Your task to perform on an android device: check android version Image 0: 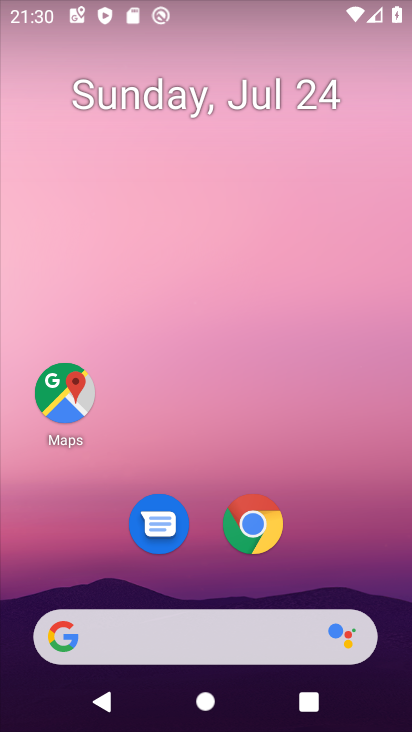
Step 0: press home button
Your task to perform on an android device: check android version Image 1: 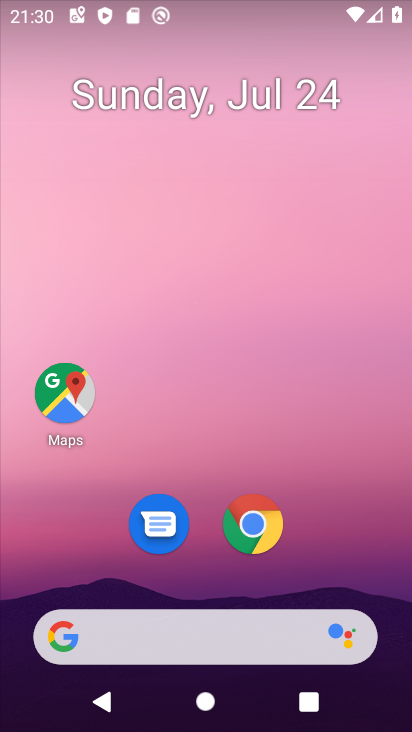
Step 1: drag from (178, 641) to (289, 133)
Your task to perform on an android device: check android version Image 2: 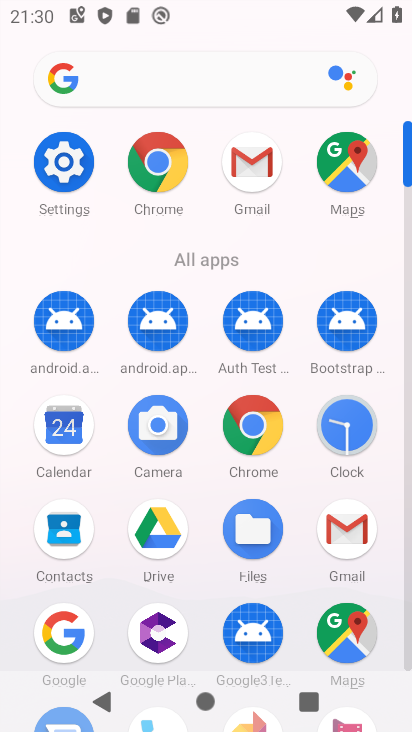
Step 2: click (67, 164)
Your task to perform on an android device: check android version Image 3: 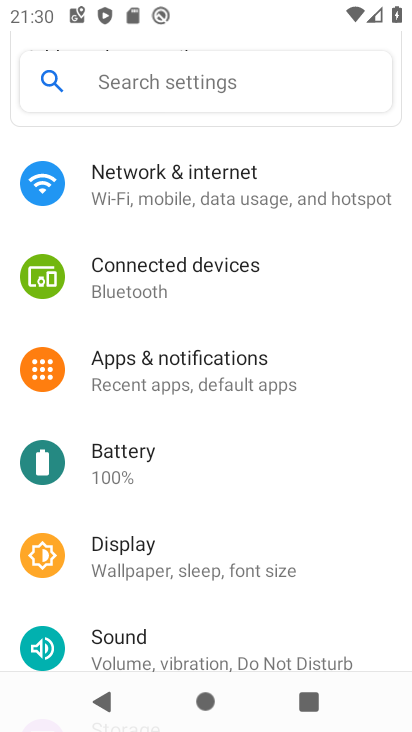
Step 3: drag from (234, 632) to (363, 33)
Your task to perform on an android device: check android version Image 4: 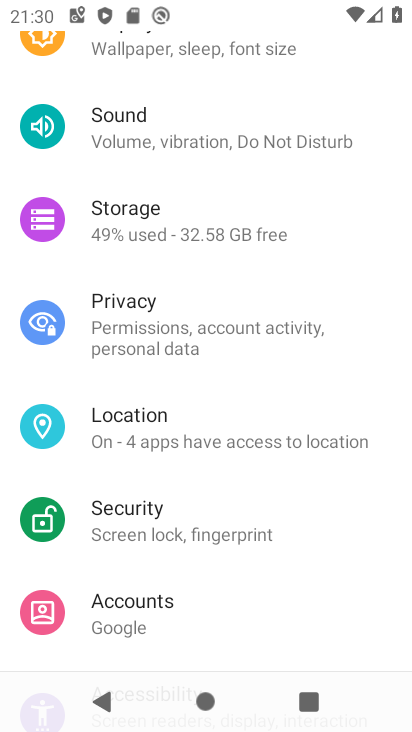
Step 4: drag from (281, 616) to (327, 62)
Your task to perform on an android device: check android version Image 5: 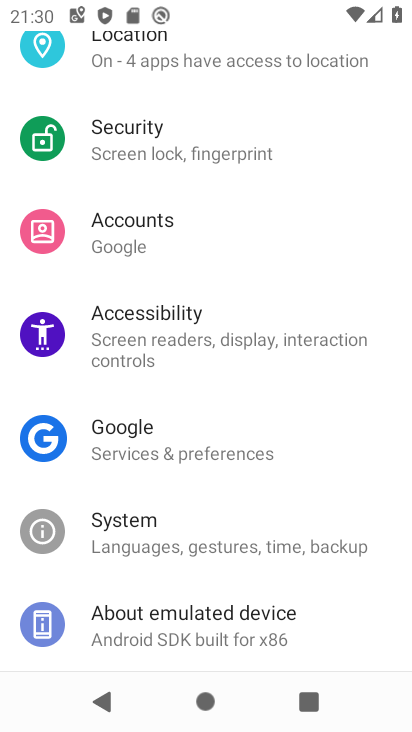
Step 5: click (254, 629)
Your task to perform on an android device: check android version Image 6: 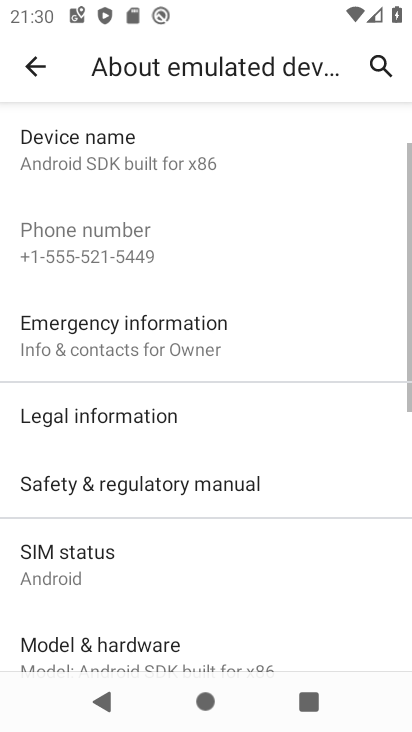
Step 6: drag from (243, 563) to (305, 120)
Your task to perform on an android device: check android version Image 7: 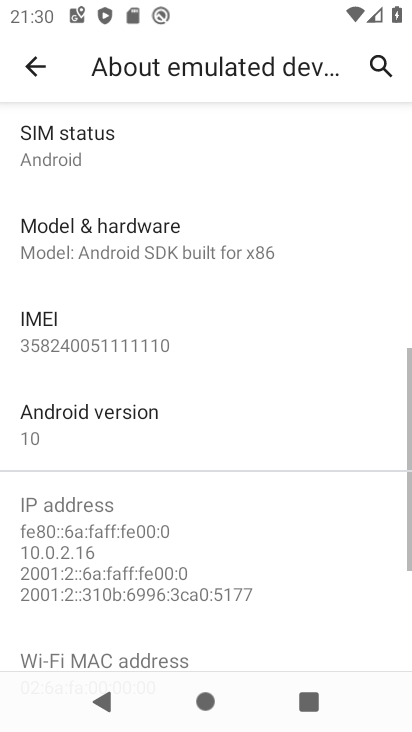
Step 7: click (150, 413)
Your task to perform on an android device: check android version Image 8: 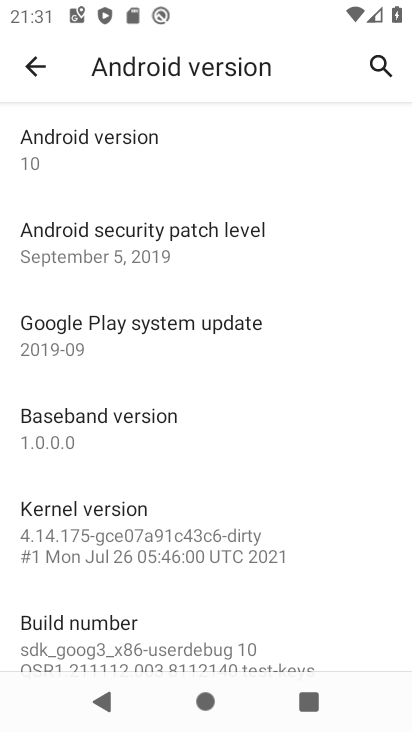
Step 8: task complete